Your task to perform on an android device: Find coffee shops on Maps Image 0: 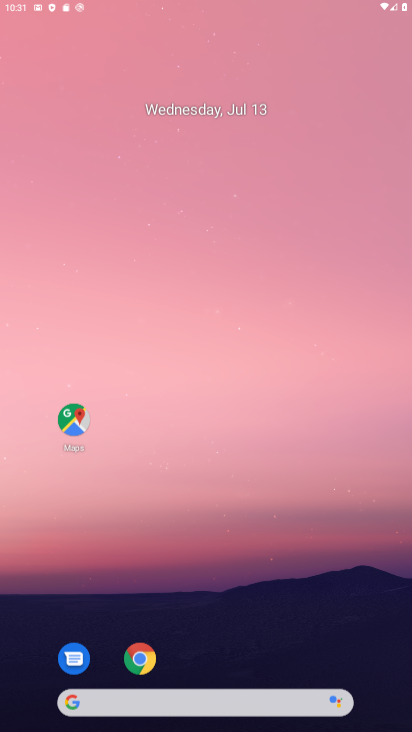
Step 0: click (260, 120)
Your task to perform on an android device: Find coffee shops on Maps Image 1: 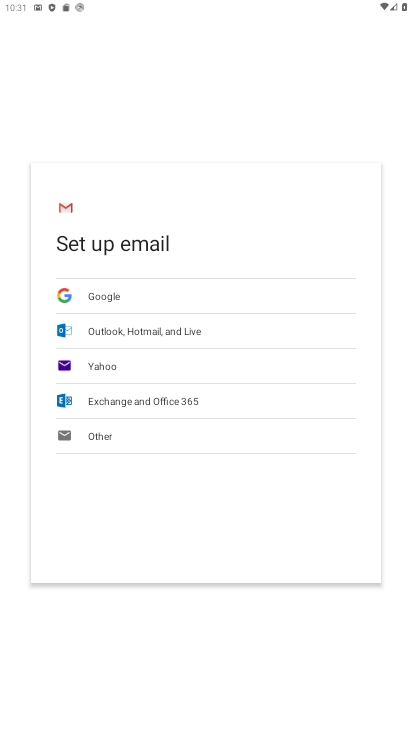
Step 1: press home button
Your task to perform on an android device: Find coffee shops on Maps Image 2: 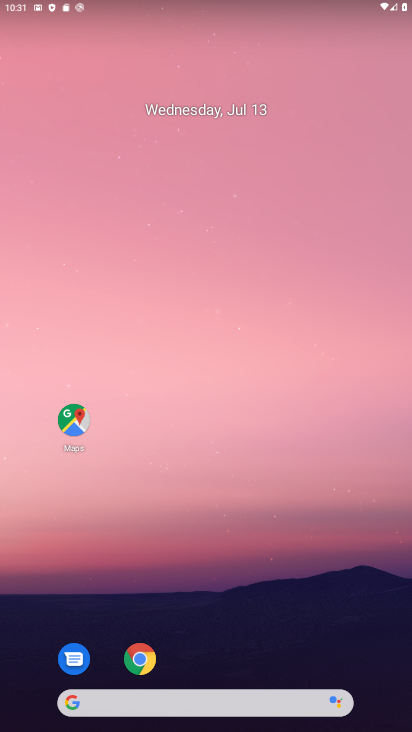
Step 2: drag from (220, 678) to (278, 111)
Your task to perform on an android device: Find coffee shops on Maps Image 3: 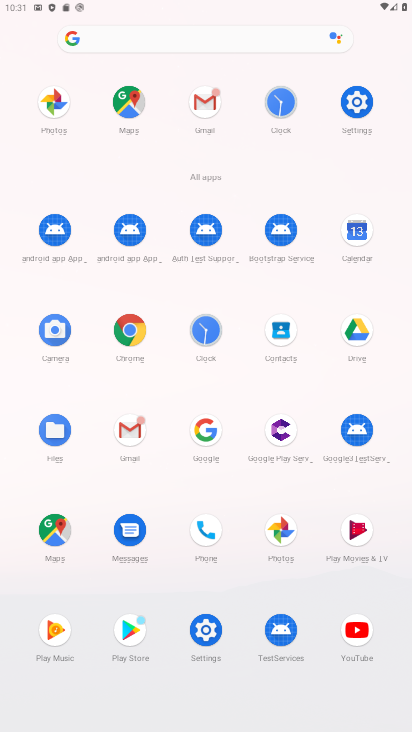
Step 3: click (48, 539)
Your task to perform on an android device: Find coffee shops on Maps Image 4: 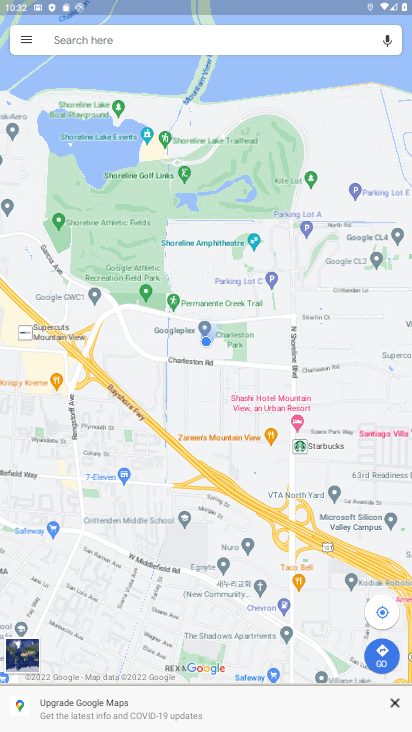
Step 4: click (124, 49)
Your task to perform on an android device: Find coffee shops on Maps Image 5: 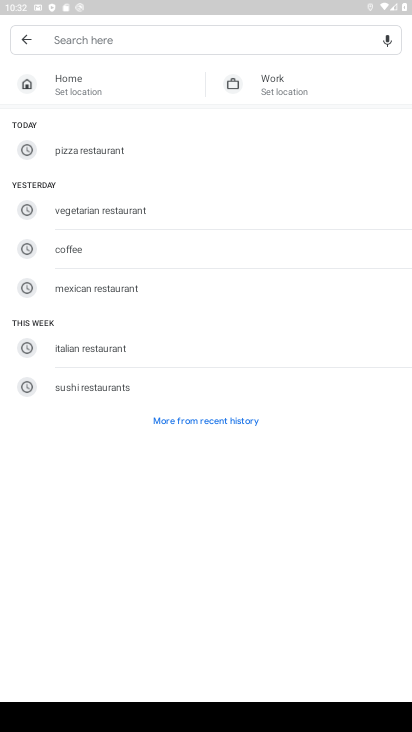
Step 5: type "Coffee shops"
Your task to perform on an android device: Find coffee shops on Maps Image 6: 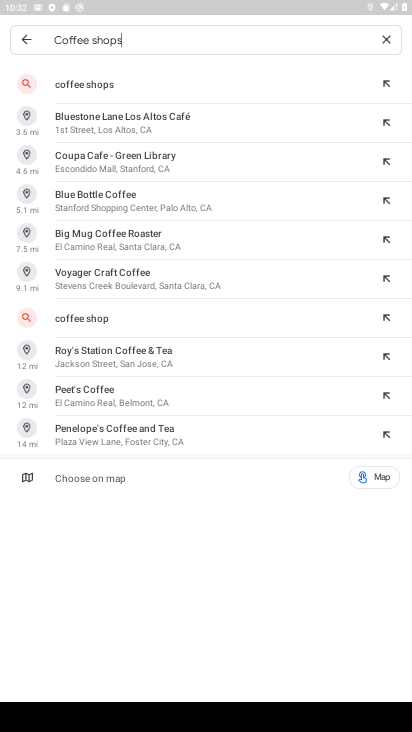
Step 6: press enter
Your task to perform on an android device: Find coffee shops on Maps Image 7: 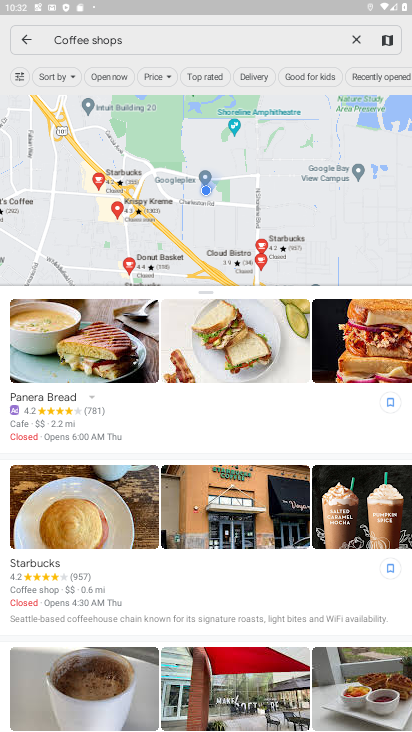
Step 7: task complete